Your task to perform on an android device: When is my next appointment? Image 0: 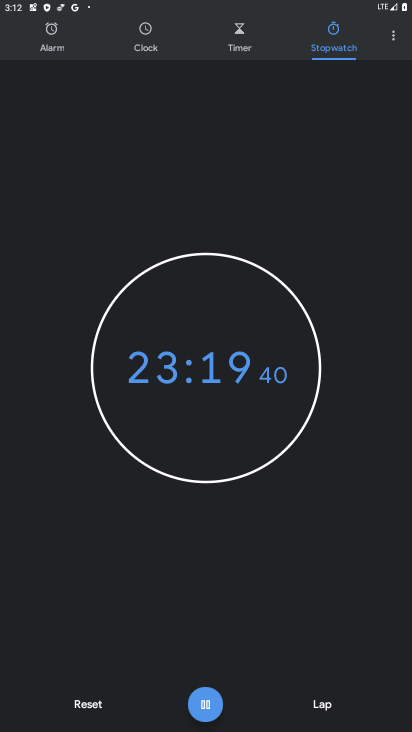
Step 0: press home button
Your task to perform on an android device: When is my next appointment? Image 1: 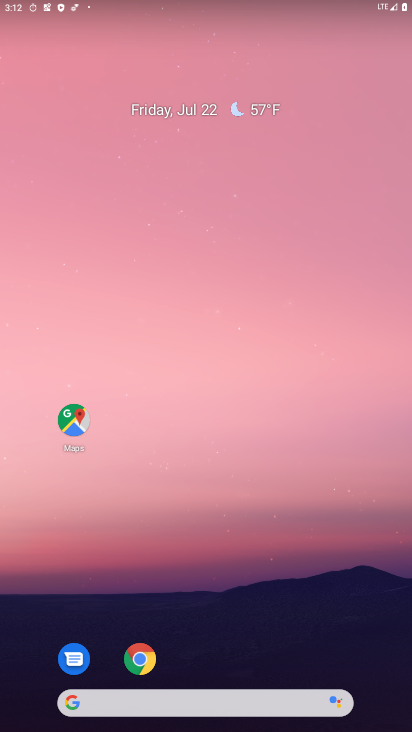
Step 1: drag from (323, 655) to (270, 155)
Your task to perform on an android device: When is my next appointment? Image 2: 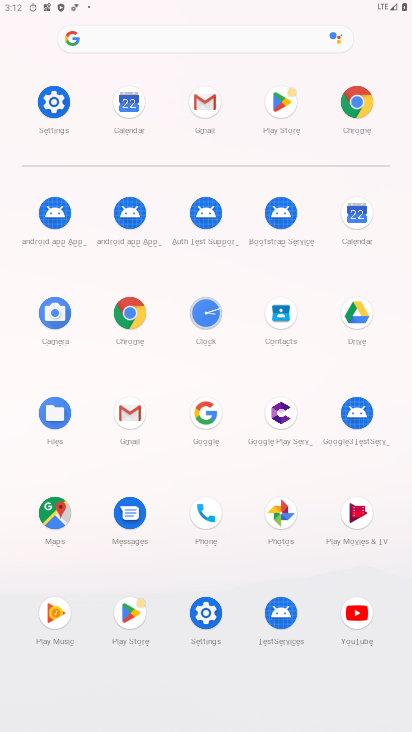
Step 2: click (362, 214)
Your task to perform on an android device: When is my next appointment? Image 3: 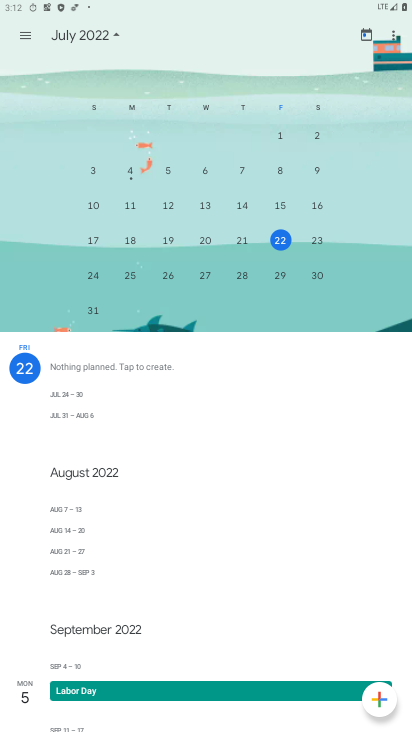
Step 3: click (277, 241)
Your task to perform on an android device: When is my next appointment? Image 4: 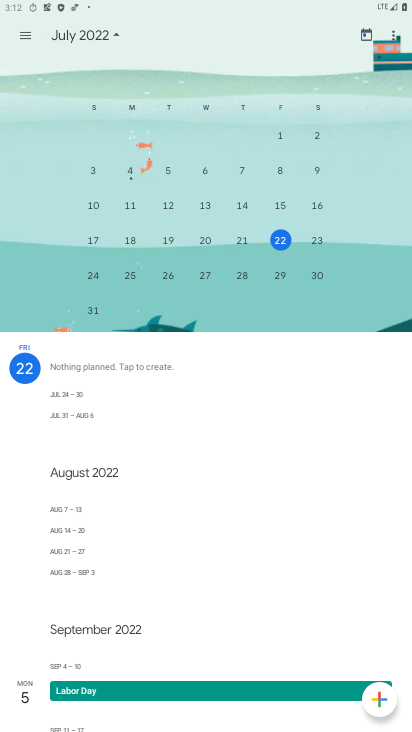
Step 4: task complete